Your task to perform on an android device: Open the stopwatch Image 0: 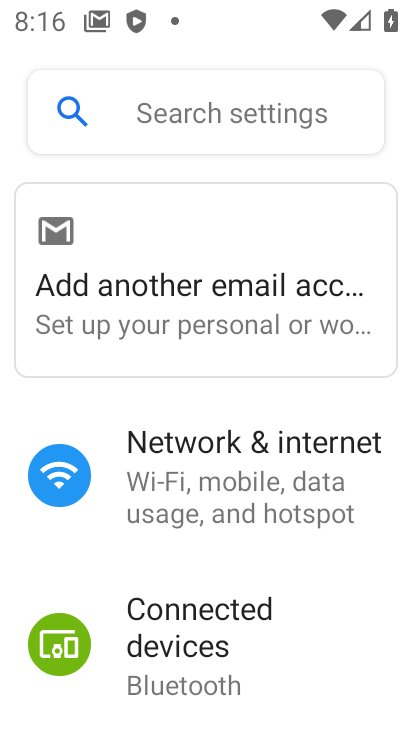
Step 0: press home button
Your task to perform on an android device: Open the stopwatch Image 1: 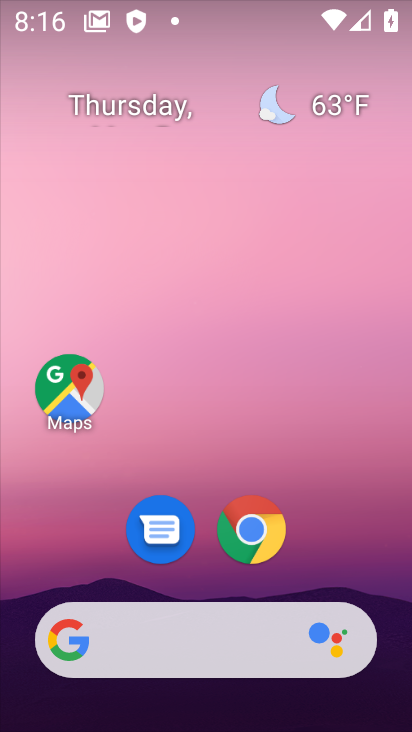
Step 1: drag from (209, 573) to (187, 187)
Your task to perform on an android device: Open the stopwatch Image 2: 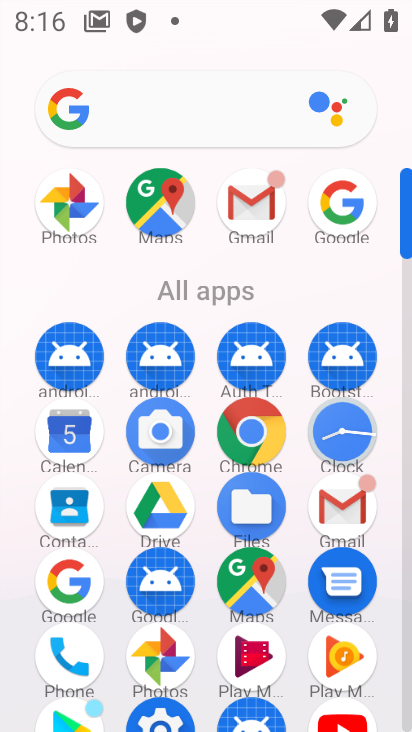
Step 2: click (351, 428)
Your task to perform on an android device: Open the stopwatch Image 3: 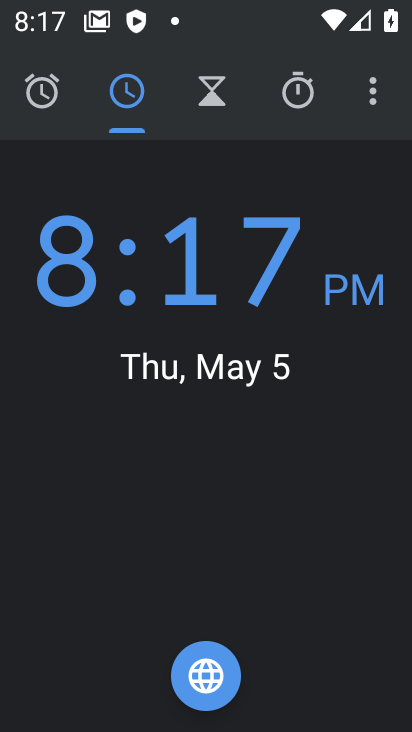
Step 3: click (292, 89)
Your task to perform on an android device: Open the stopwatch Image 4: 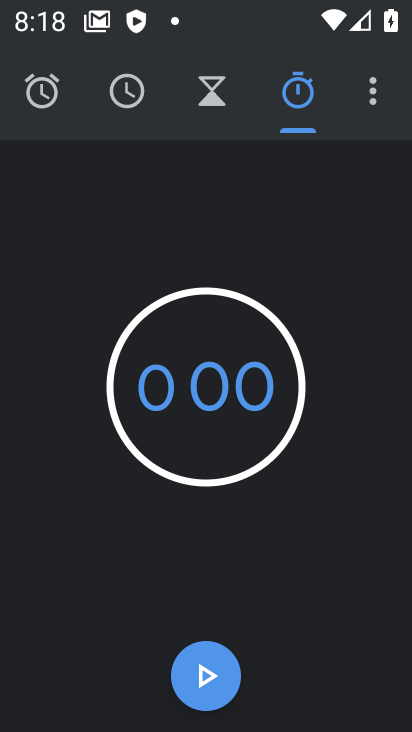
Step 4: task complete